Your task to perform on an android device: turn on translation in the chrome app Image 0: 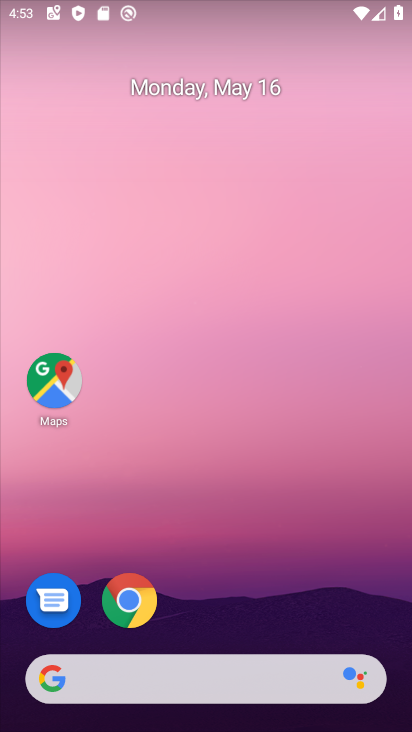
Step 0: drag from (210, 646) to (133, 74)
Your task to perform on an android device: turn on translation in the chrome app Image 1: 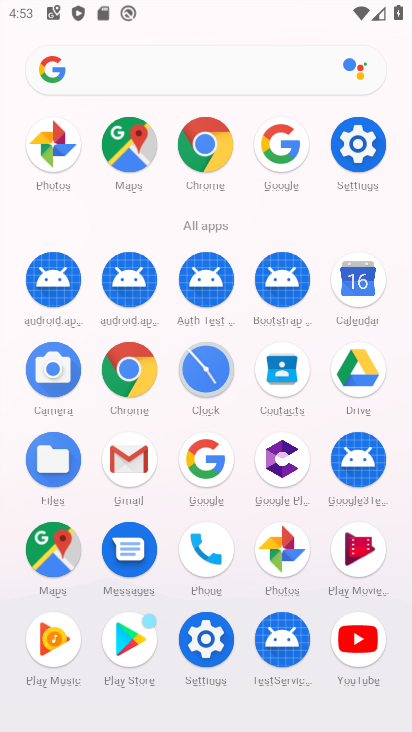
Step 1: click (129, 363)
Your task to perform on an android device: turn on translation in the chrome app Image 2: 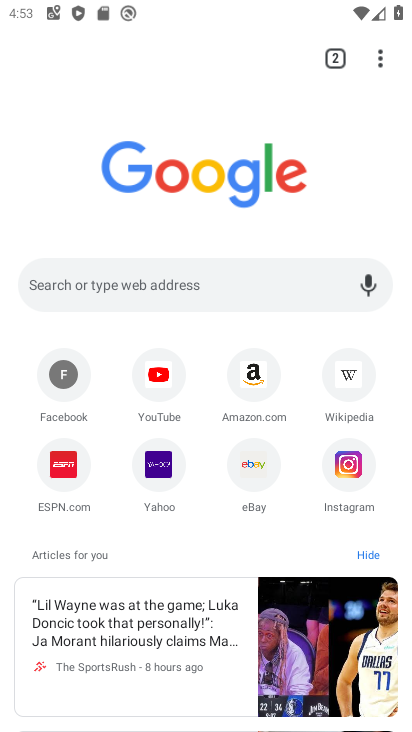
Step 2: click (381, 61)
Your task to perform on an android device: turn on translation in the chrome app Image 3: 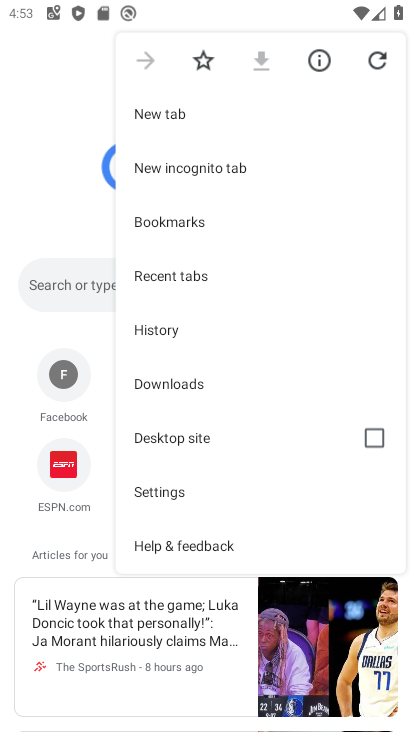
Step 3: click (173, 493)
Your task to perform on an android device: turn on translation in the chrome app Image 4: 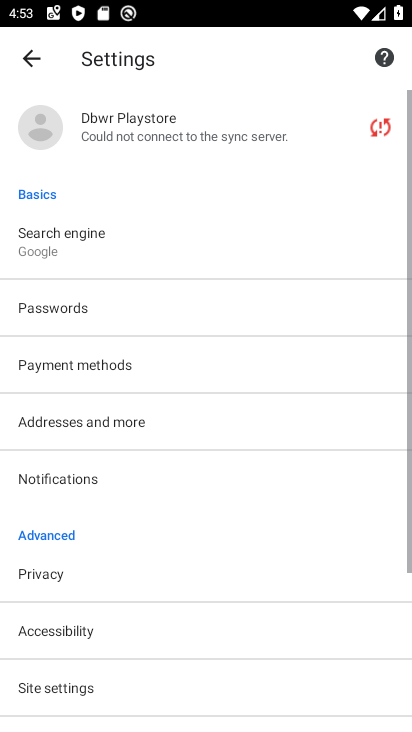
Step 4: drag from (156, 606) to (159, 138)
Your task to perform on an android device: turn on translation in the chrome app Image 5: 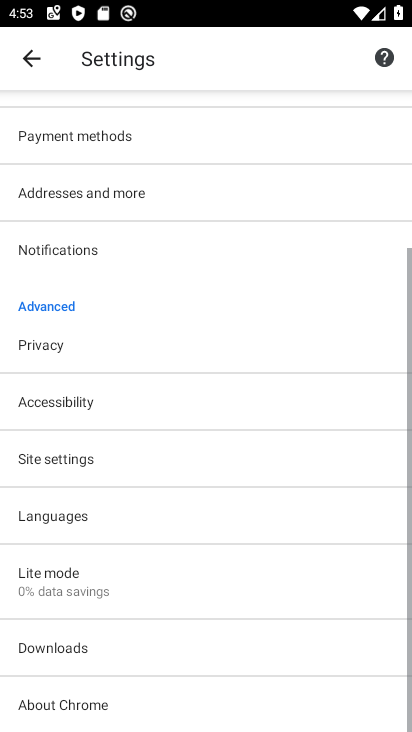
Step 5: click (78, 522)
Your task to perform on an android device: turn on translation in the chrome app Image 6: 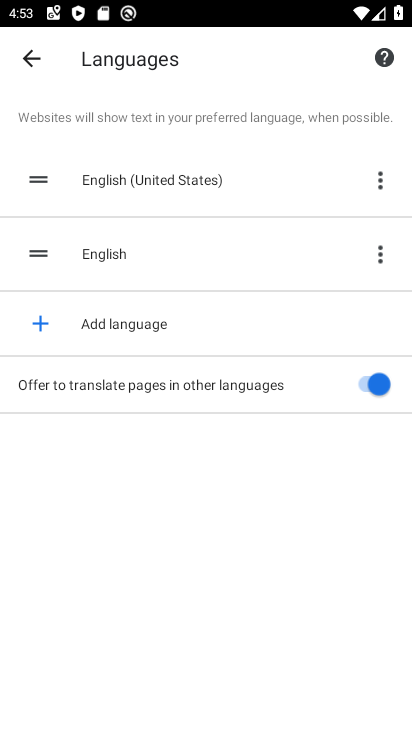
Step 6: task complete